Your task to perform on an android device: change the clock style Image 0: 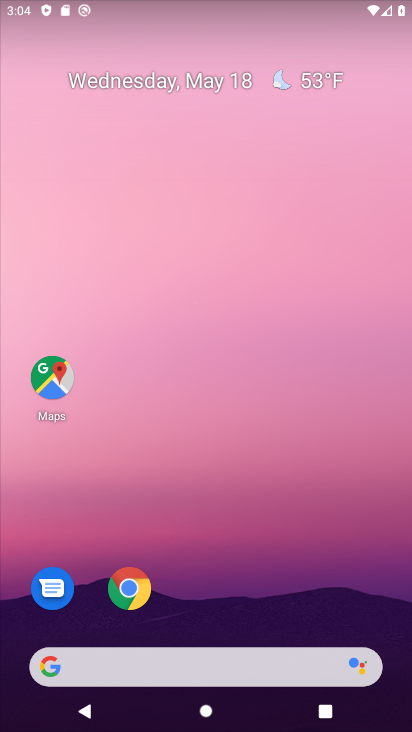
Step 0: press home button
Your task to perform on an android device: change the clock style Image 1: 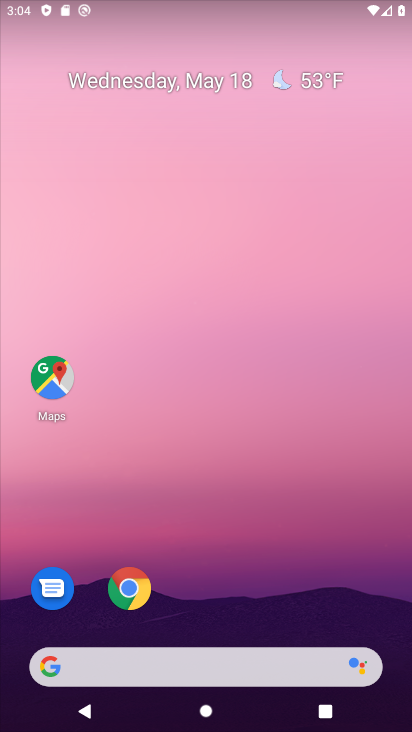
Step 1: drag from (328, 504) to (287, 118)
Your task to perform on an android device: change the clock style Image 2: 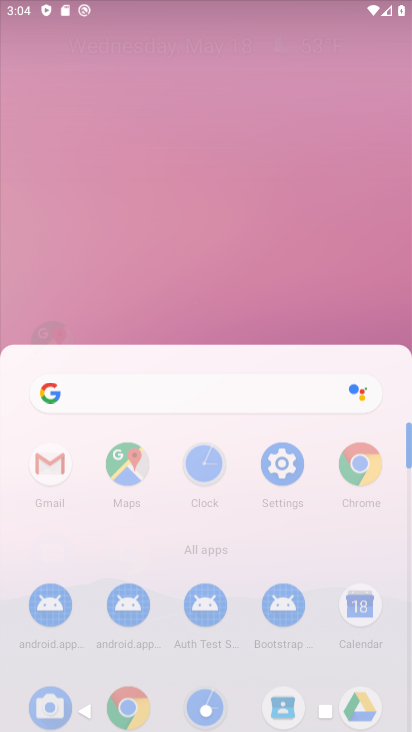
Step 2: click (270, 25)
Your task to perform on an android device: change the clock style Image 3: 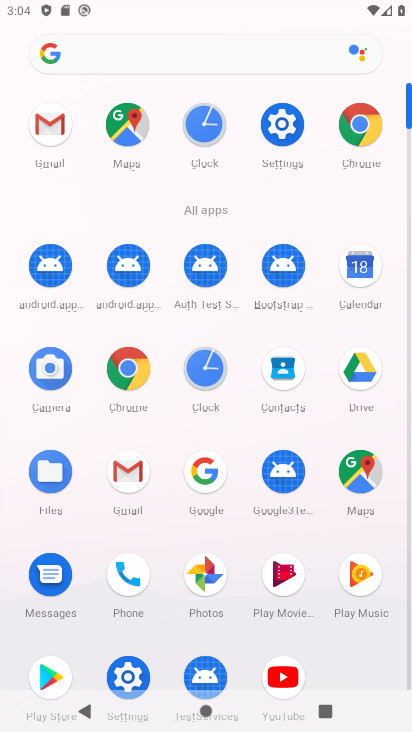
Step 3: click (222, 125)
Your task to perform on an android device: change the clock style Image 4: 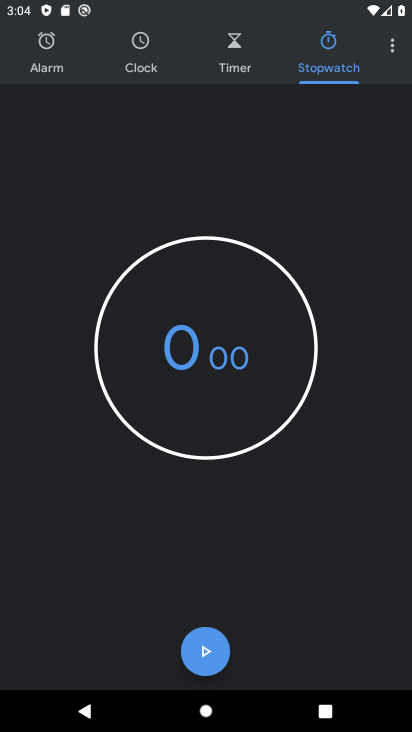
Step 4: click (389, 52)
Your task to perform on an android device: change the clock style Image 5: 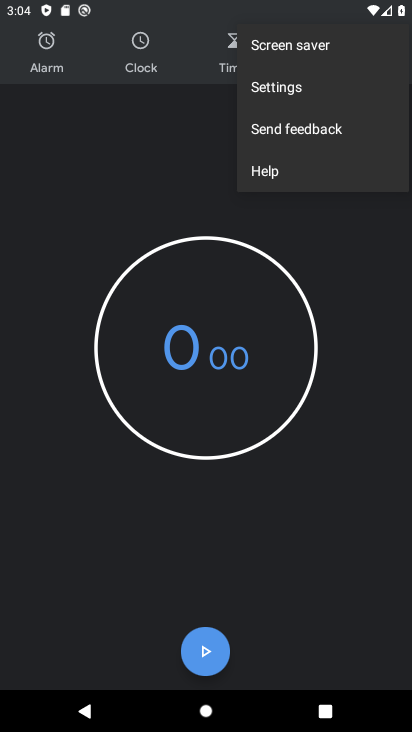
Step 5: click (345, 90)
Your task to perform on an android device: change the clock style Image 6: 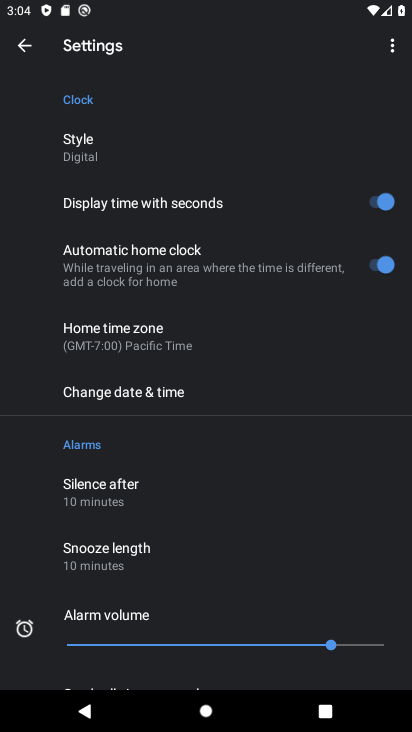
Step 6: click (97, 134)
Your task to perform on an android device: change the clock style Image 7: 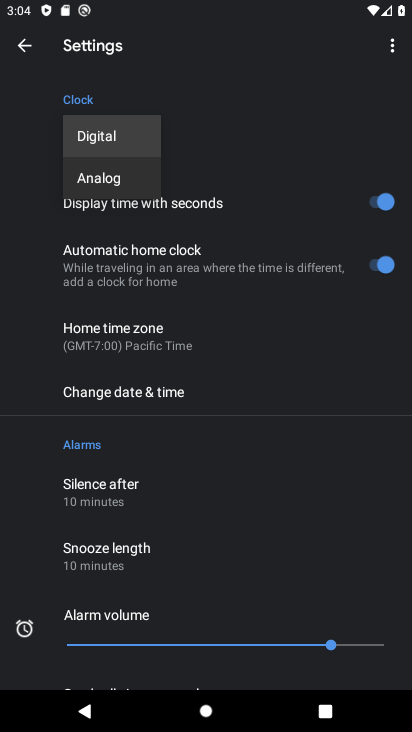
Step 7: click (99, 184)
Your task to perform on an android device: change the clock style Image 8: 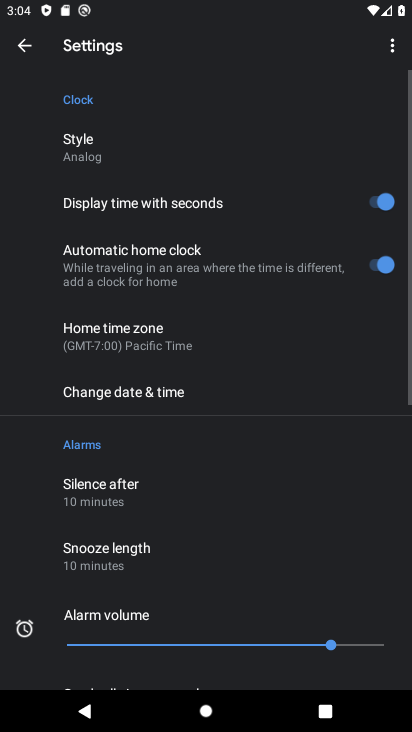
Step 8: task complete